Your task to perform on an android device: turn vacation reply on in the gmail app Image 0: 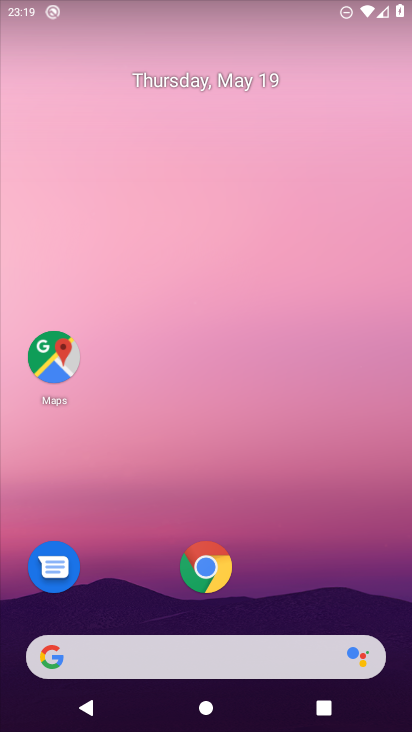
Step 0: press home button
Your task to perform on an android device: turn vacation reply on in the gmail app Image 1: 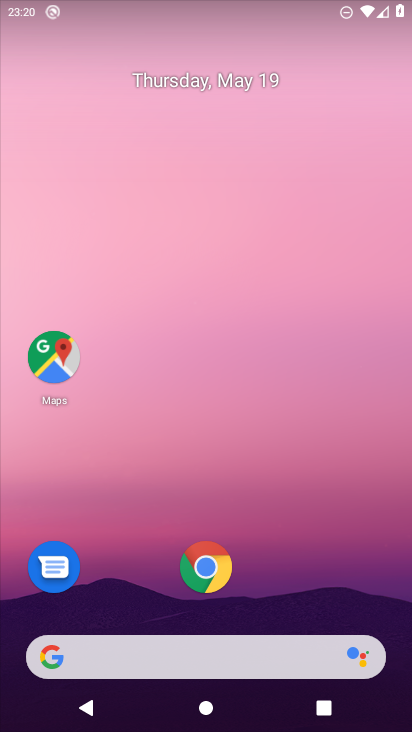
Step 1: drag from (285, 606) to (348, 0)
Your task to perform on an android device: turn vacation reply on in the gmail app Image 2: 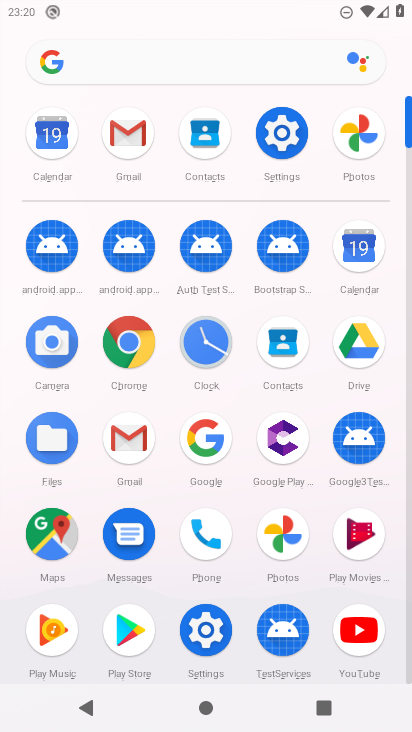
Step 2: click (129, 429)
Your task to perform on an android device: turn vacation reply on in the gmail app Image 3: 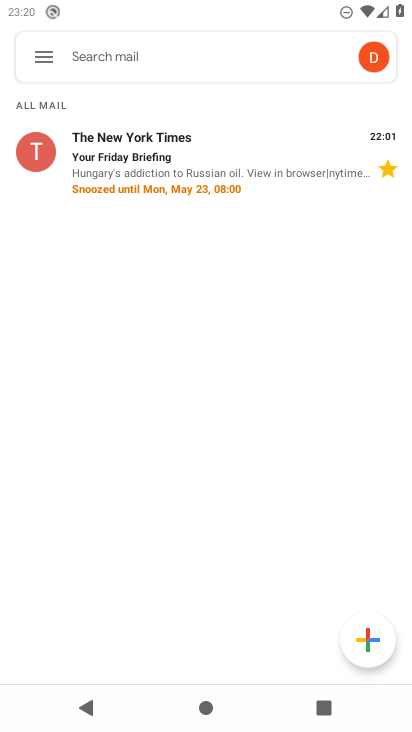
Step 3: press home button
Your task to perform on an android device: turn vacation reply on in the gmail app Image 4: 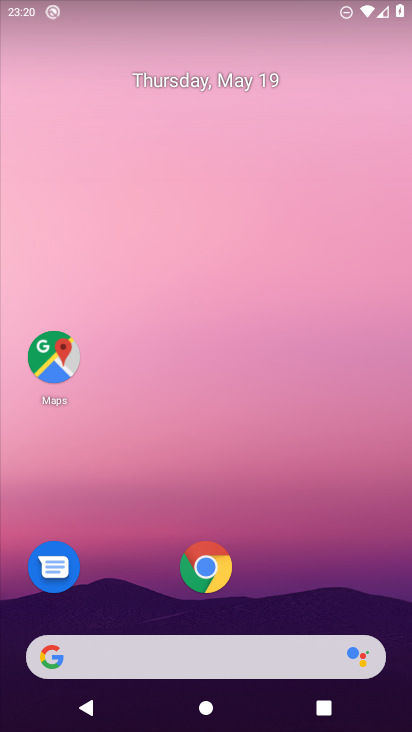
Step 4: drag from (253, 583) to (358, 1)
Your task to perform on an android device: turn vacation reply on in the gmail app Image 5: 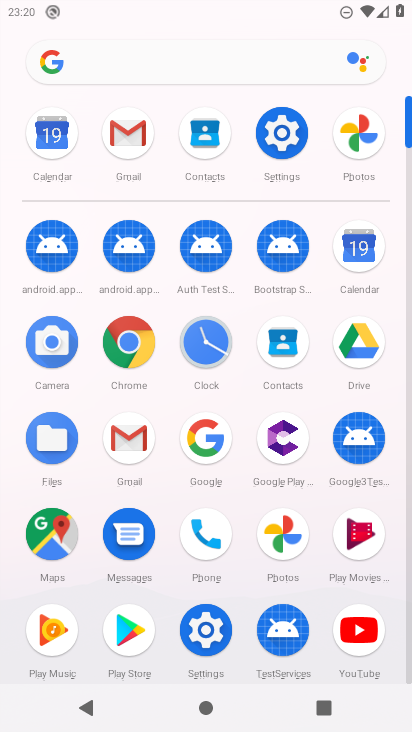
Step 5: click (125, 433)
Your task to perform on an android device: turn vacation reply on in the gmail app Image 6: 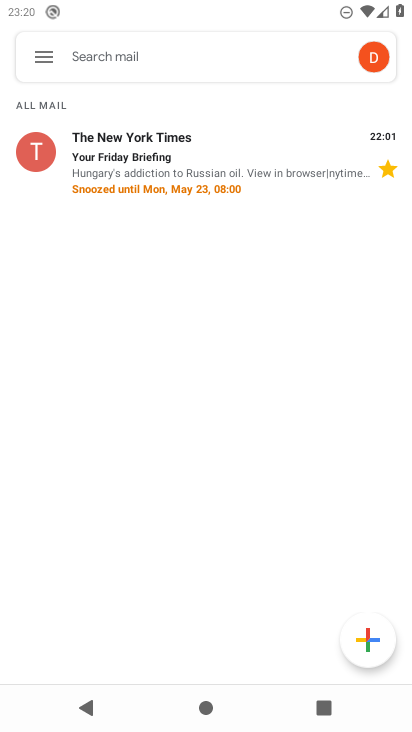
Step 6: click (52, 54)
Your task to perform on an android device: turn vacation reply on in the gmail app Image 7: 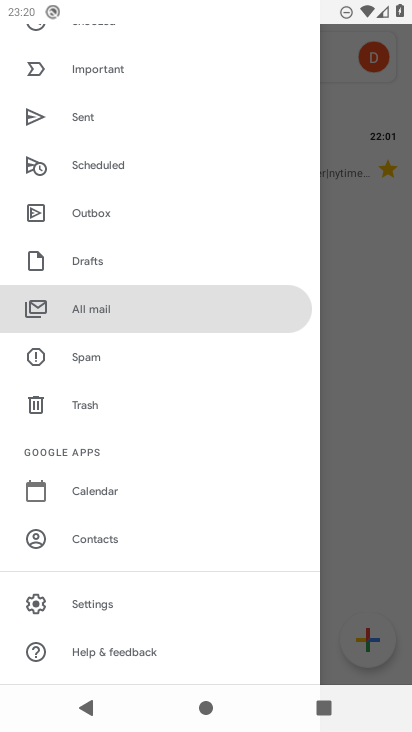
Step 7: click (127, 601)
Your task to perform on an android device: turn vacation reply on in the gmail app Image 8: 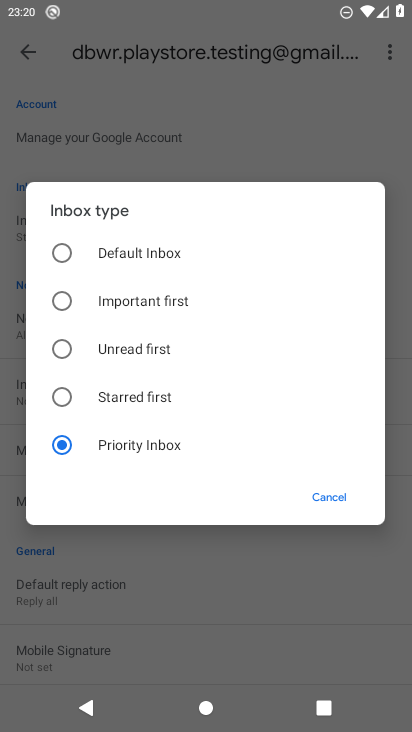
Step 8: click (202, 160)
Your task to perform on an android device: turn vacation reply on in the gmail app Image 9: 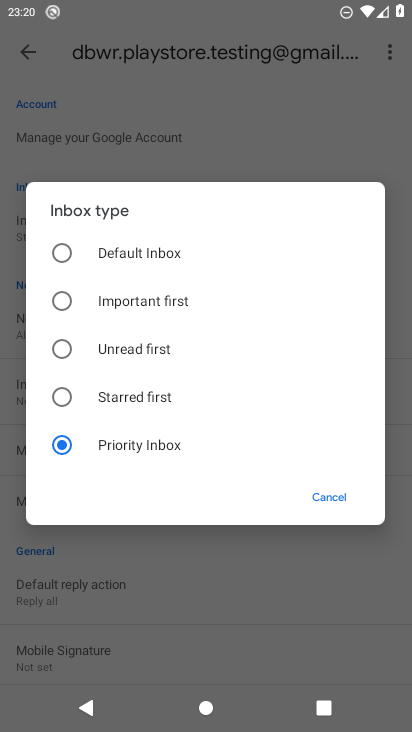
Step 9: click (325, 500)
Your task to perform on an android device: turn vacation reply on in the gmail app Image 10: 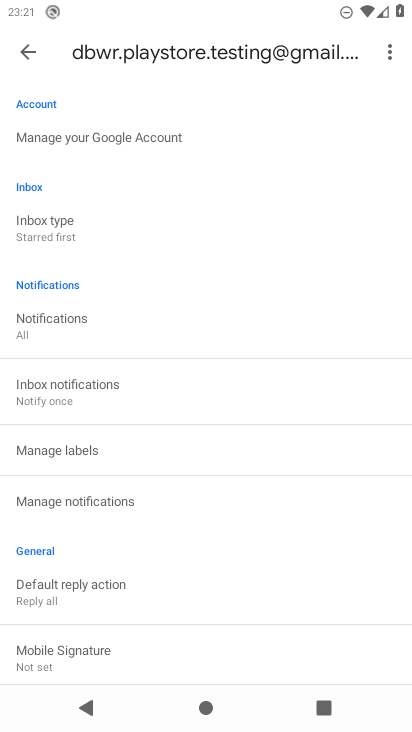
Step 10: drag from (206, 580) to (243, 111)
Your task to perform on an android device: turn vacation reply on in the gmail app Image 11: 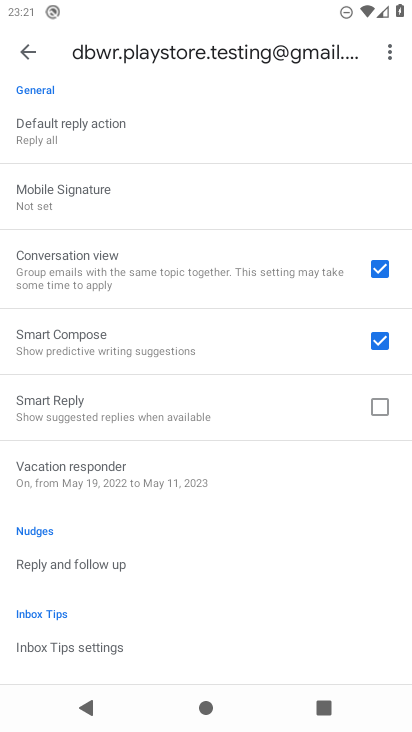
Step 11: click (154, 471)
Your task to perform on an android device: turn vacation reply on in the gmail app Image 12: 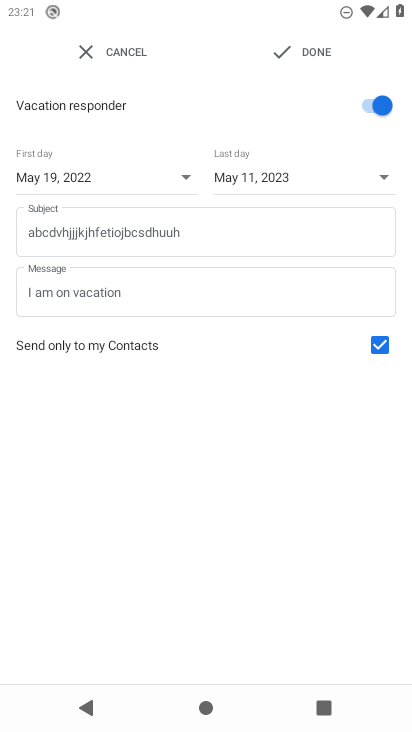
Step 12: task complete